Your task to perform on an android device: allow cookies in the chrome app Image 0: 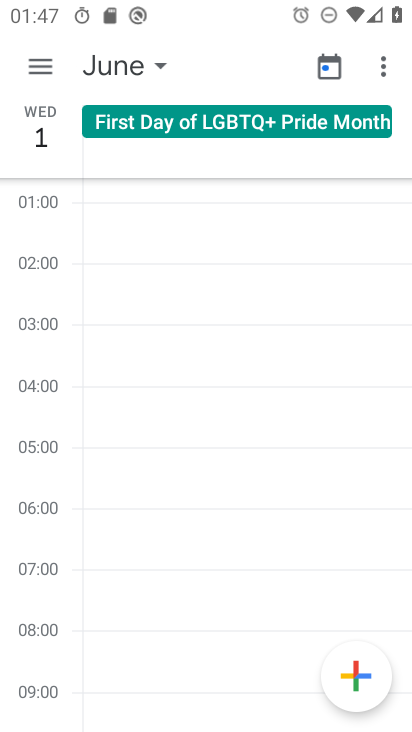
Step 0: press home button
Your task to perform on an android device: allow cookies in the chrome app Image 1: 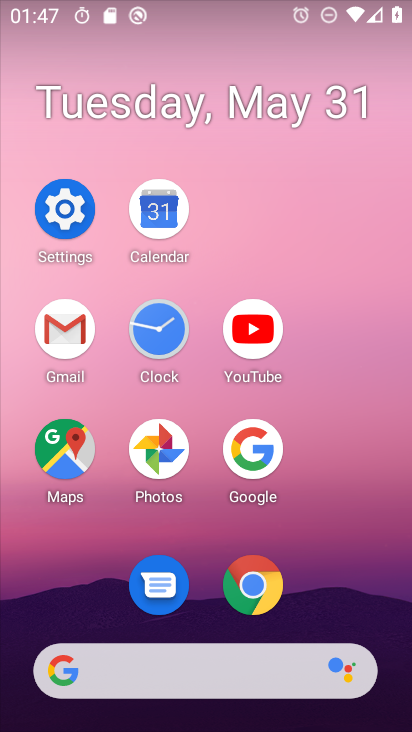
Step 1: click (252, 570)
Your task to perform on an android device: allow cookies in the chrome app Image 2: 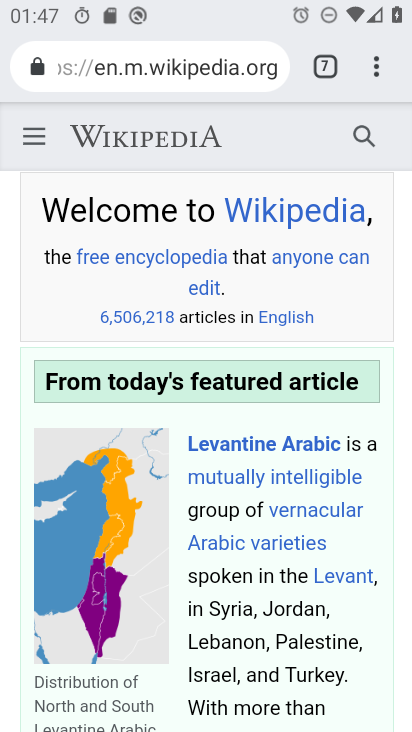
Step 2: click (388, 59)
Your task to perform on an android device: allow cookies in the chrome app Image 3: 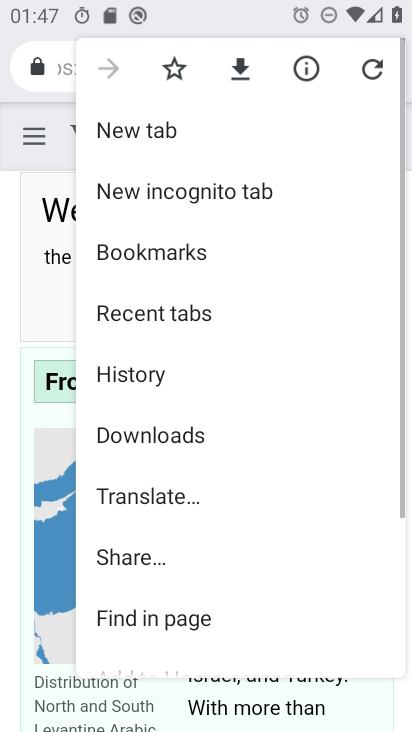
Step 3: drag from (259, 503) to (295, 132)
Your task to perform on an android device: allow cookies in the chrome app Image 4: 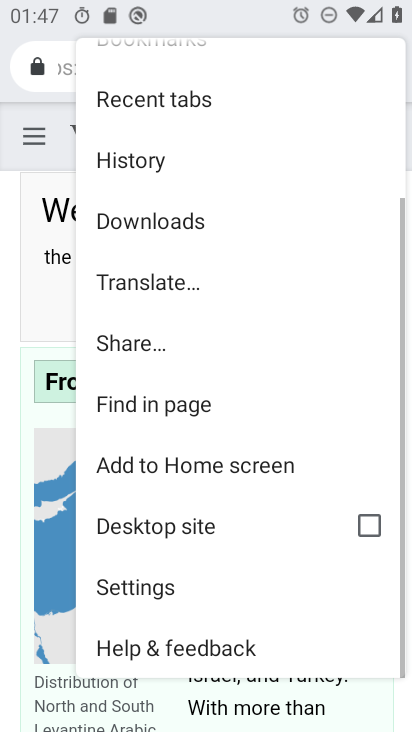
Step 4: click (151, 609)
Your task to perform on an android device: allow cookies in the chrome app Image 5: 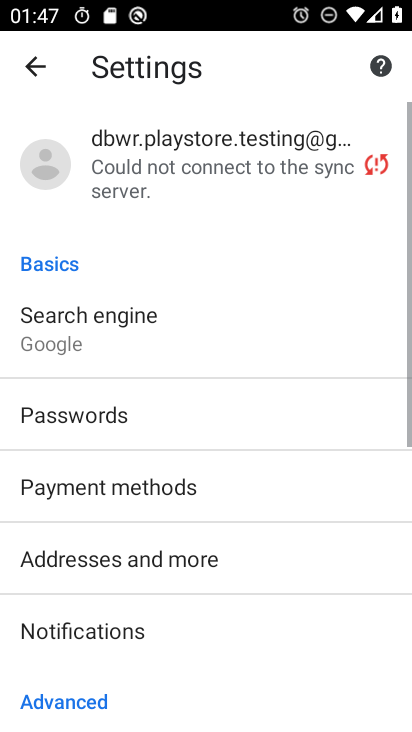
Step 5: drag from (149, 587) to (219, 122)
Your task to perform on an android device: allow cookies in the chrome app Image 6: 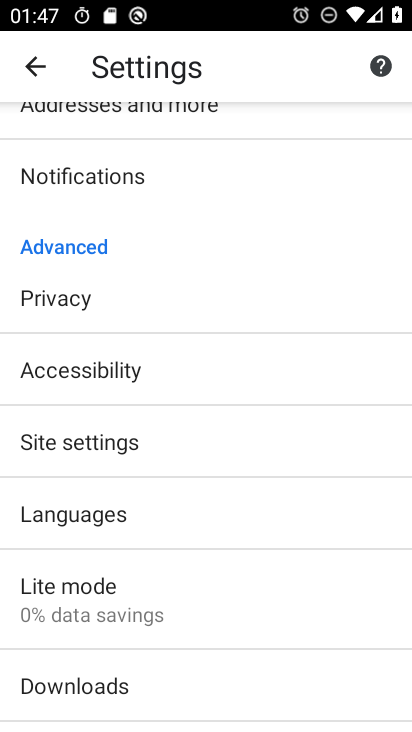
Step 6: click (137, 464)
Your task to perform on an android device: allow cookies in the chrome app Image 7: 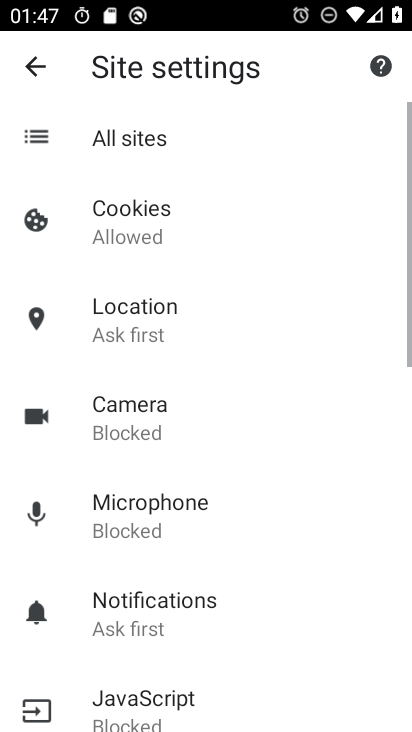
Step 7: click (245, 230)
Your task to perform on an android device: allow cookies in the chrome app Image 8: 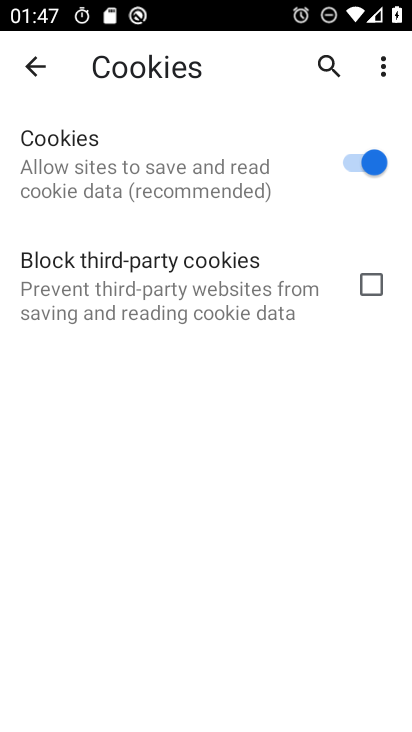
Step 8: task complete